Your task to perform on an android device: Search for seafood restaurants on Google Maps Image 0: 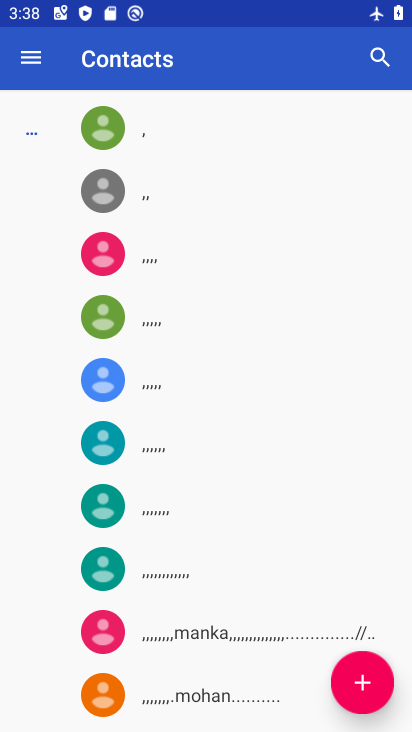
Step 0: press home button
Your task to perform on an android device: Search for seafood restaurants on Google Maps Image 1: 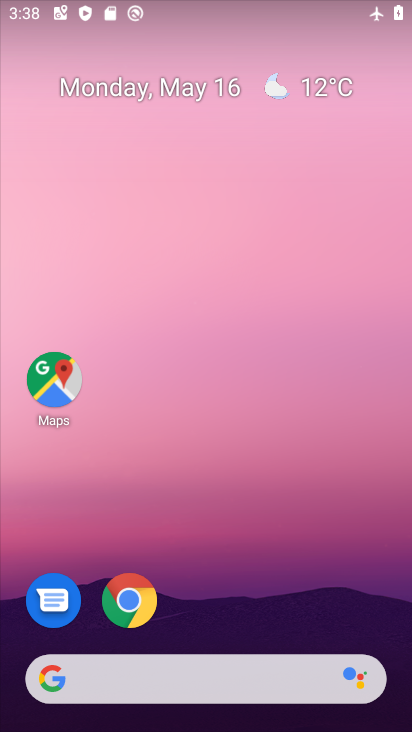
Step 1: click (25, 379)
Your task to perform on an android device: Search for seafood restaurants on Google Maps Image 2: 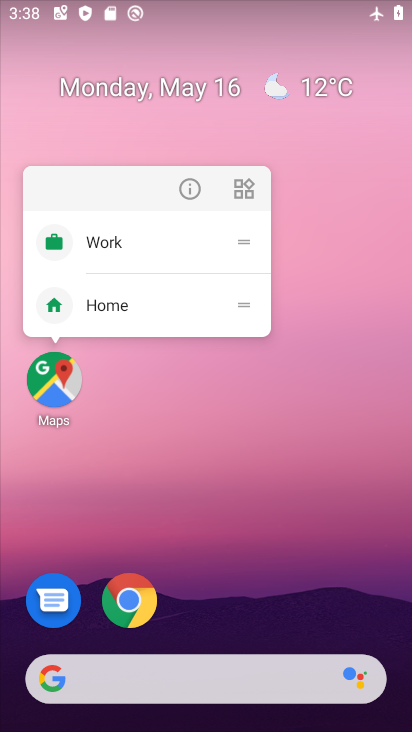
Step 2: click (29, 381)
Your task to perform on an android device: Search for seafood restaurants on Google Maps Image 3: 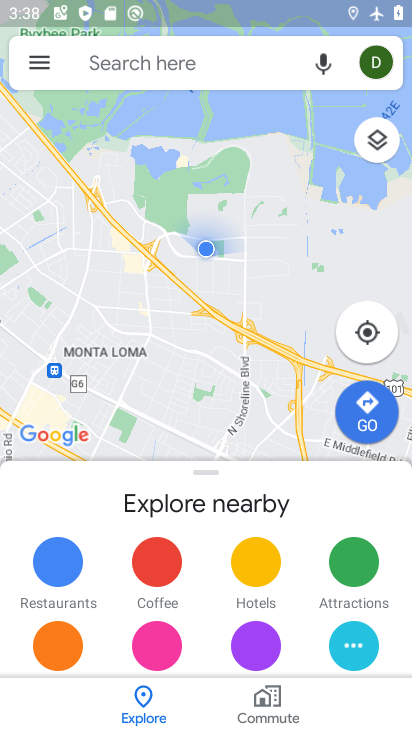
Step 3: click (165, 70)
Your task to perform on an android device: Search for seafood restaurants on Google Maps Image 4: 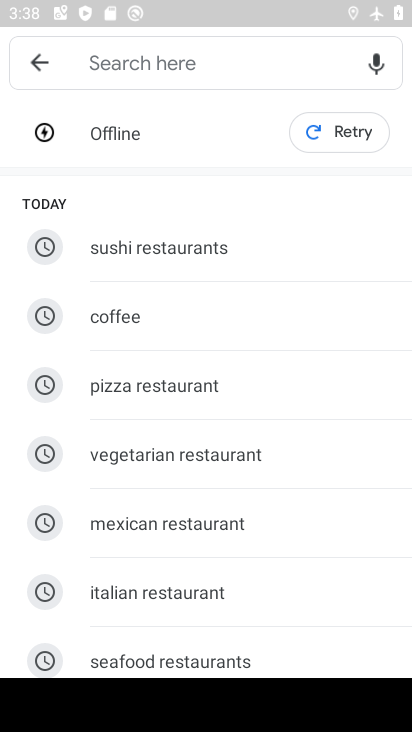
Step 4: drag from (179, 545) to (149, 177)
Your task to perform on an android device: Search for seafood restaurants on Google Maps Image 5: 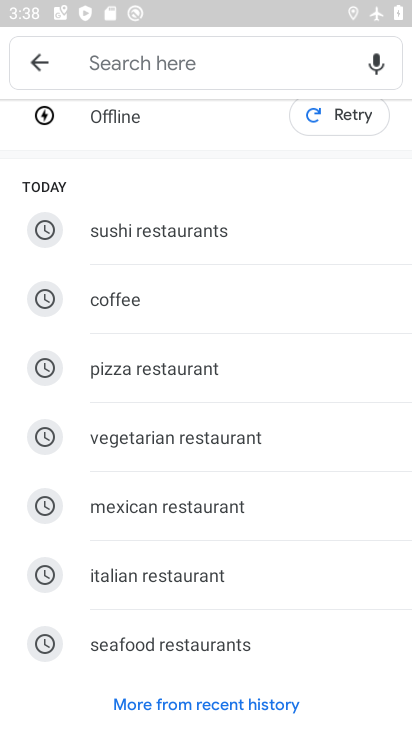
Step 5: click (152, 627)
Your task to perform on an android device: Search for seafood restaurants on Google Maps Image 6: 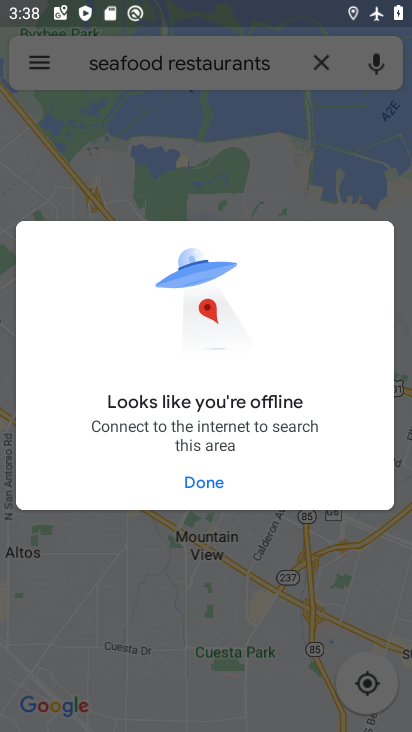
Step 6: task complete